Your task to perform on an android device: Do I have any events today? Image 0: 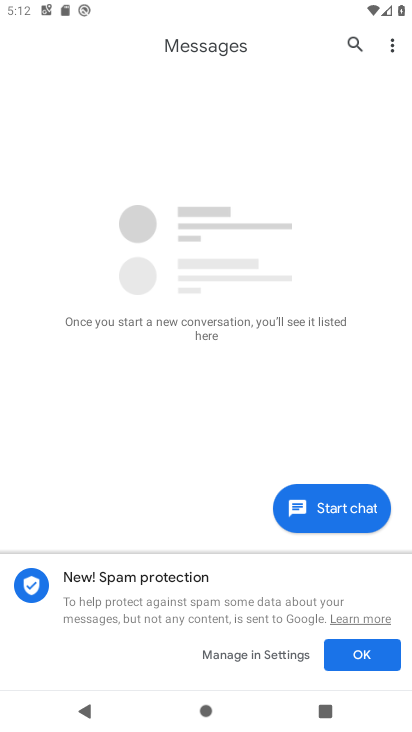
Step 0: press home button
Your task to perform on an android device: Do I have any events today? Image 1: 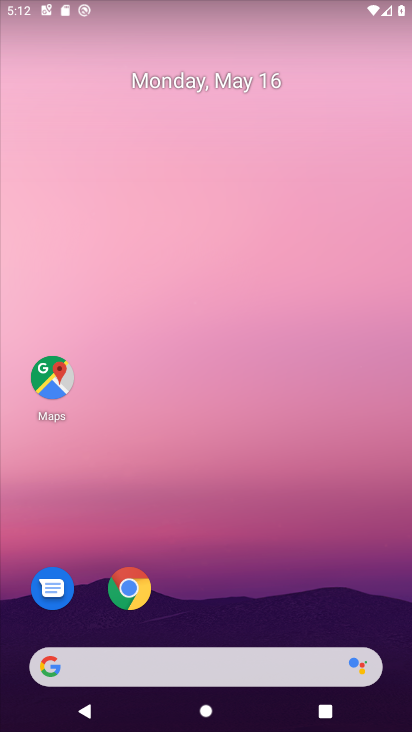
Step 1: drag from (242, 406) to (172, 4)
Your task to perform on an android device: Do I have any events today? Image 2: 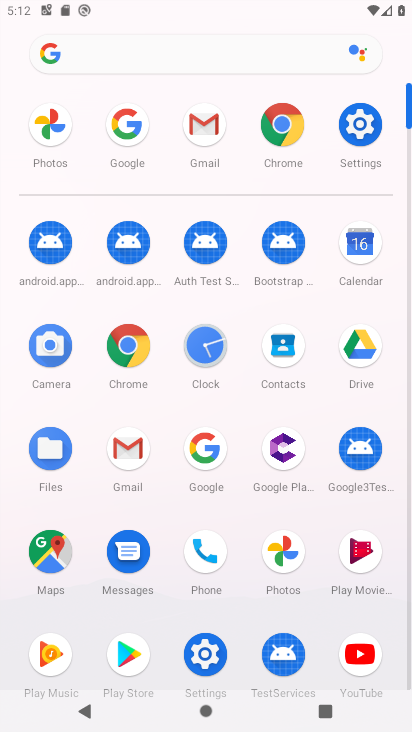
Step 2: click (358, 242)
Your task to perform on an android device: Do I have any events today? Image 3: 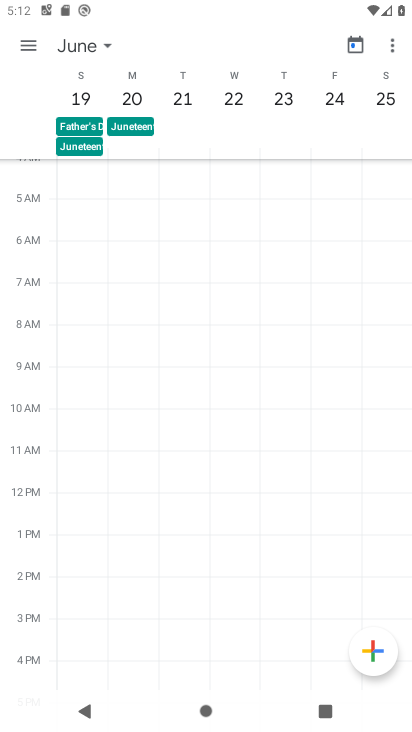
Step 3: click (25, 47)
Your task to perform on an android device: Do I have any events today? Image 4: 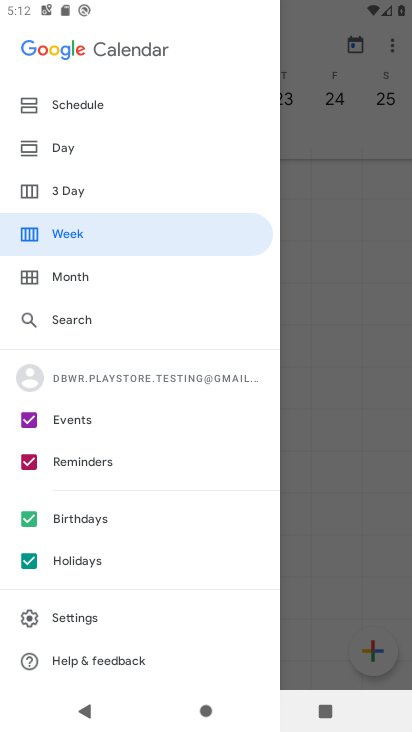
Step 4: click (76, 142)
Your task to perform on an android device: Do I have any events today? Image 5: 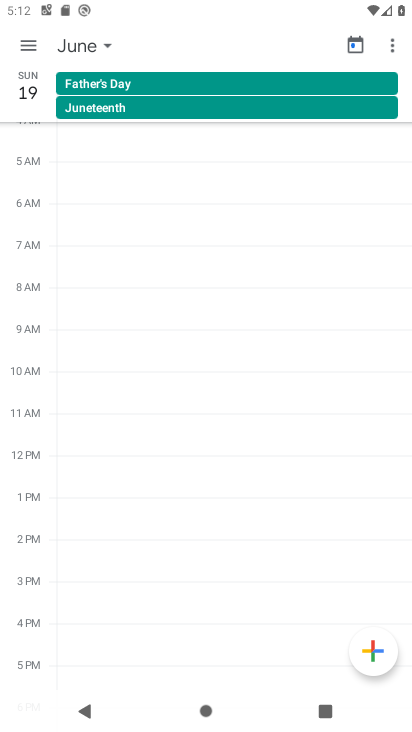
Step 5: click (99, 39)
Your task to perform on an android device: Do I have any events today? Image 6: 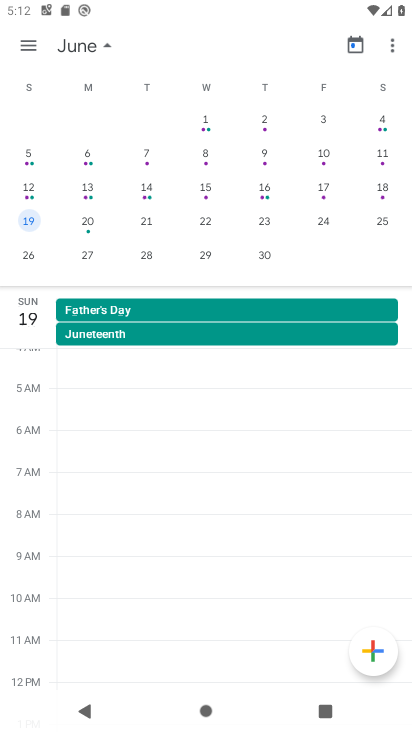
Step 6: drag from (112, 200) to (398, 236)
Your task to perform on an android device: Do I have any events today? Image 7: 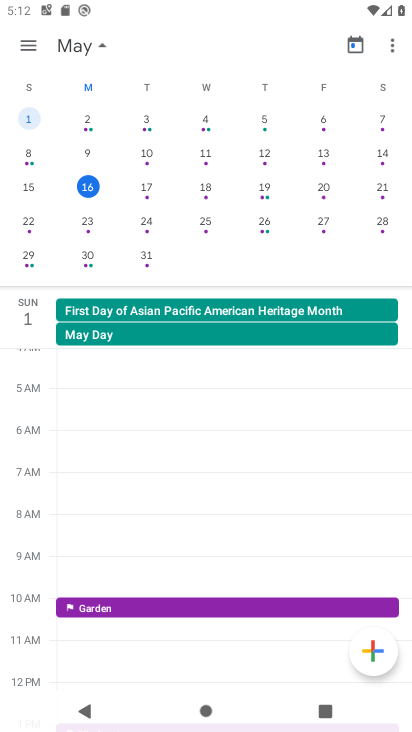
Step 7: click (87, 181)
Your task to perform on an android device: Do I have any events today? Image 8: 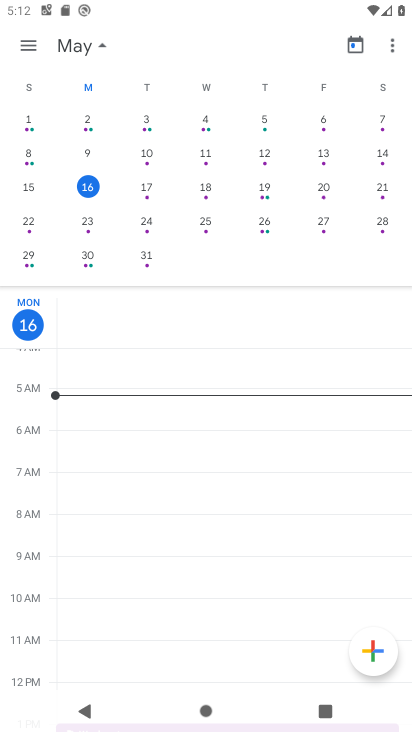
Step 8: task complete